Your task to perform on an android device: check storage Image 0: 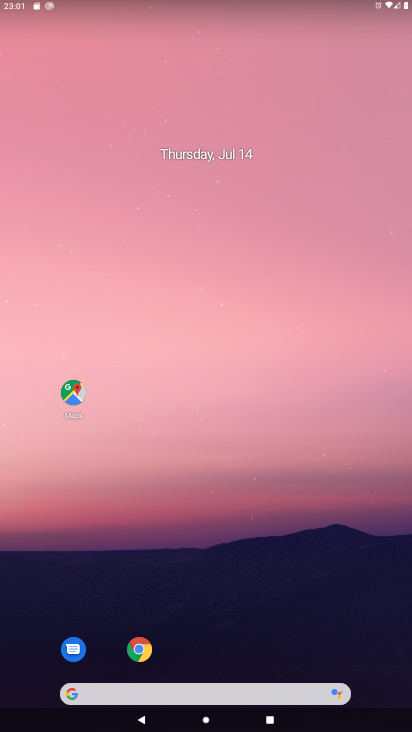
Step 0: drag from (232, 712) to (217, 67)
Your task to perform on an android device: check storage Image 1: 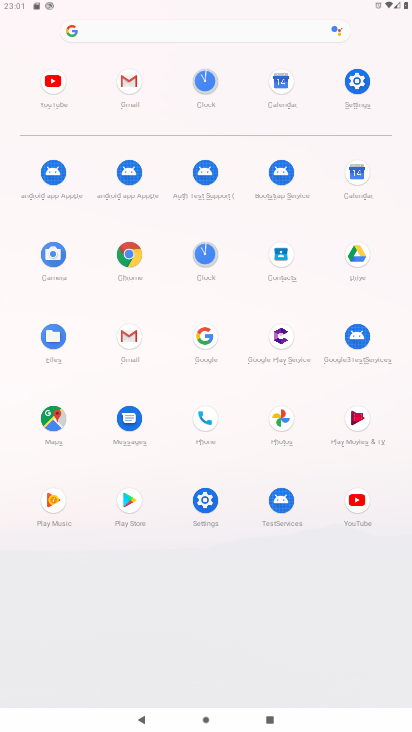
Step 1: click (364, 78)
Your task to perform on an android device: check storage Image 2: 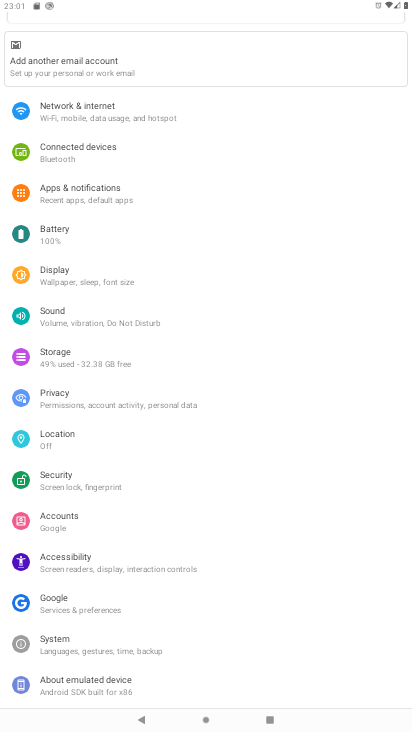
Step 2: click (98, 365)
Your task to perform on an android device: check storage Image 3: 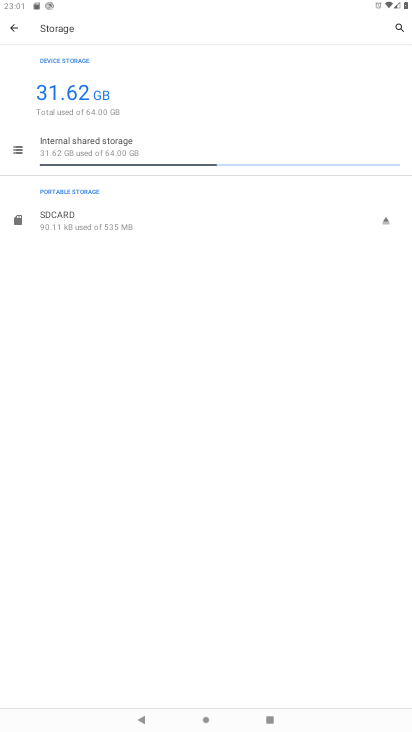
Step 3: task complete